Your task to perform on an android device: check battery use Image 0: 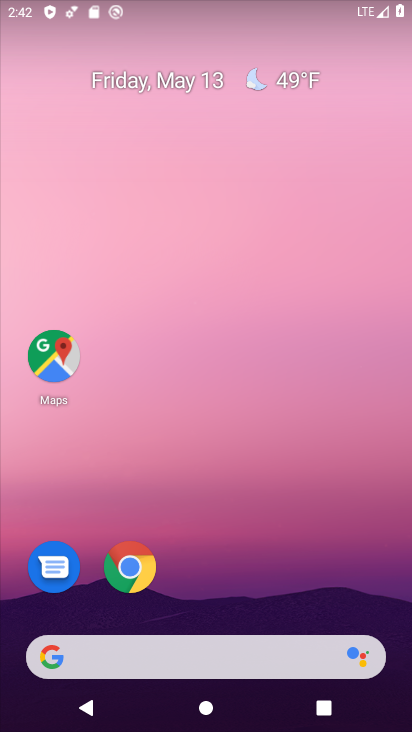
Step 0: drag from (222, 618) to (213, 31)
Your task to perform on an android device: check battery use Image 1: 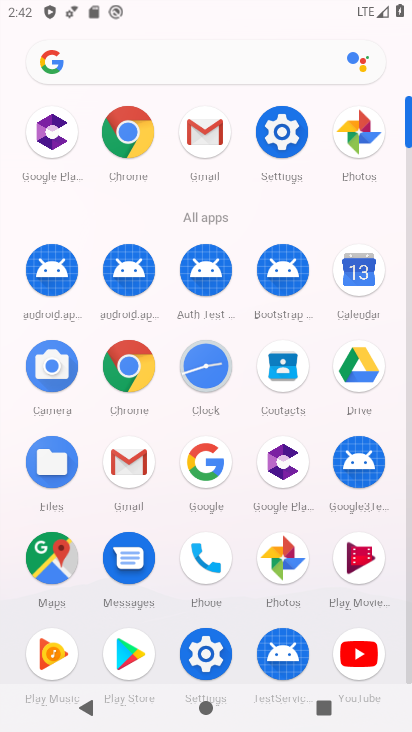
Step 1: click (287, 139)
Your task to perform on an android device: check battery use Image 2: 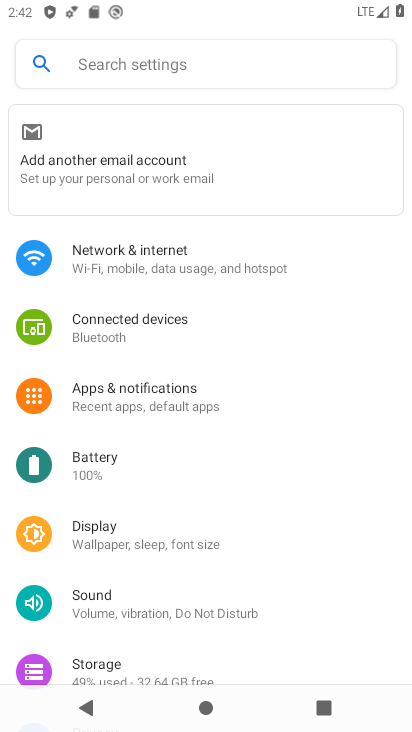
Step 2: click (89, 456)
Your task to perform on an android device: check battery use Image 3: 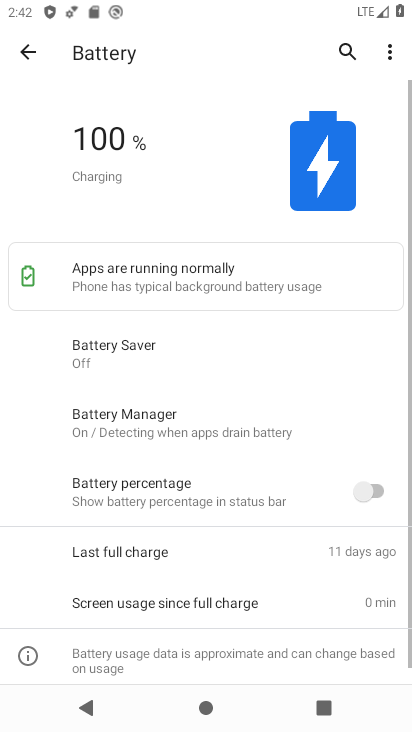
Step 3: click (386, 51)
Your task to perform on an android device: check battery use Image 4: 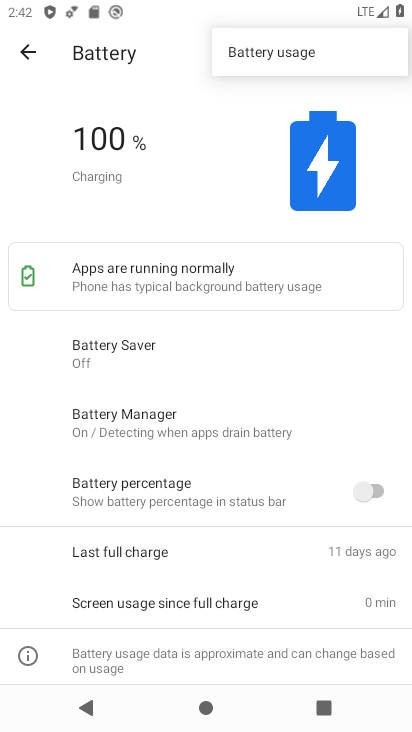
Step 4: click (291, 57)
Your task to perform on an android device: check battery use Image 5: 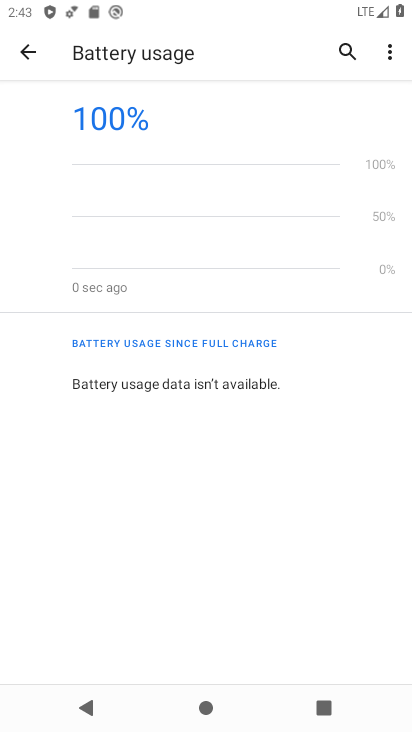
Step 5: task complete